Your task to perform on an android device: see creations saved in the google photos Image 0: 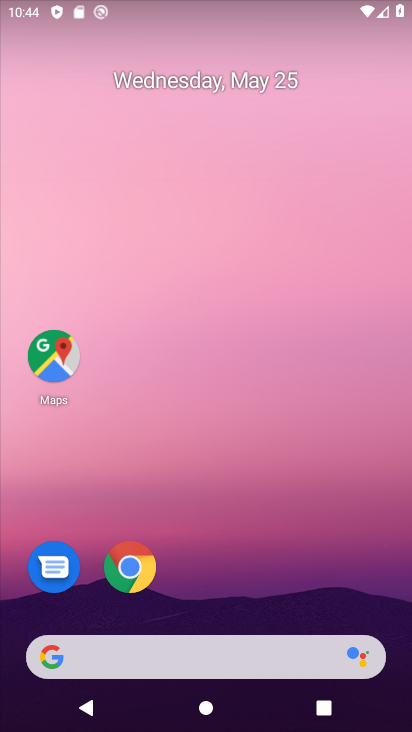
Step 0: drag from (214, 605) to (300, 1)
Your task to perform on an android device: see creations saved in the google photos Image 1: 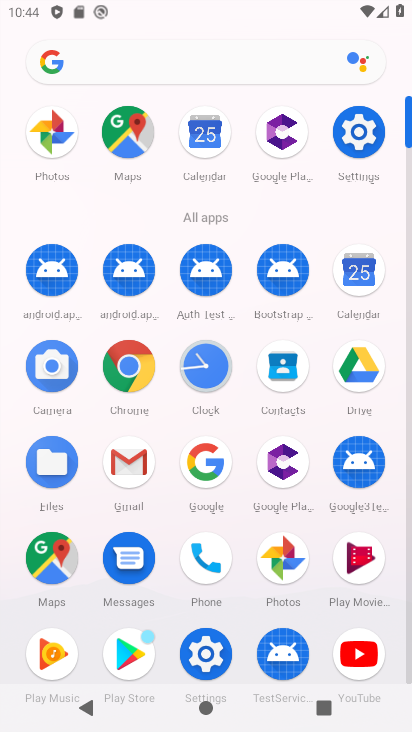
Step 1: click (269, 562)
Your task to perform on an android device: see creations saved in the google photos Image 2: 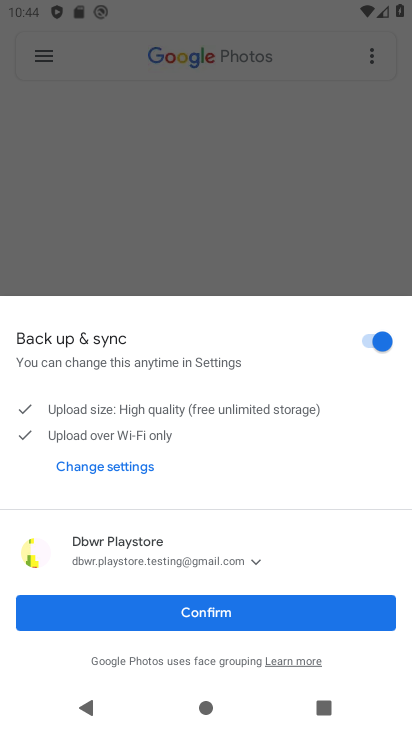
Step 2: click (246, 618)
Your task to perform on an android device: see creations saved in the google photos Image 3: 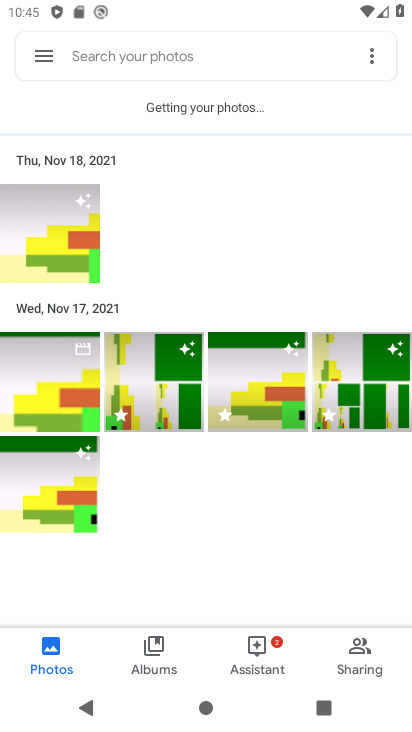
Step 3: click (130, 57)
Your task to perform on an android device: see creations saved in the google photos Image 4: 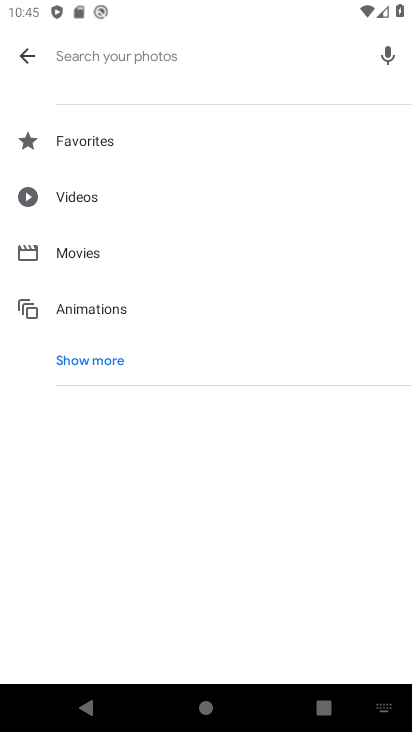
Step 4: type "creations"
Your task to perform on an android device: see creations saved in the google photos Image 5: 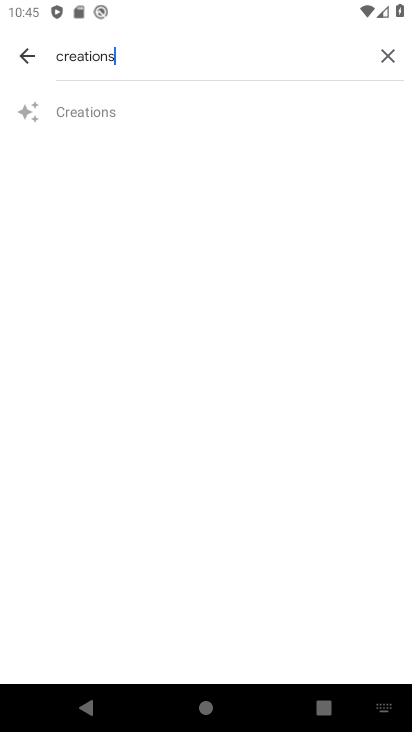
Step 5: click (92, 106)
Your task to perform on an android device: see creations saved in the google photos Image 6: 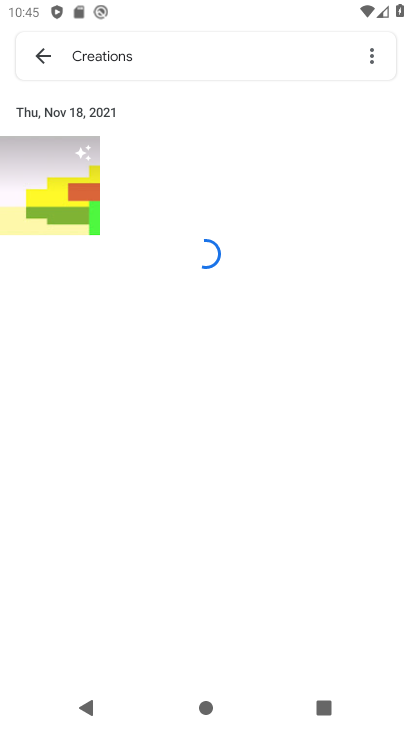
Step 6: task complete